Your task to perform on an android device: Open Amazon Image 0: 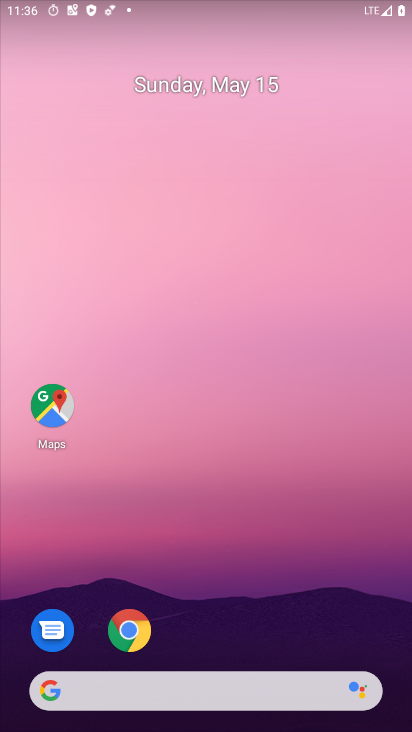
Step 0: click (130, 629)
Your task to perform on an android device: Open Amazon Image 1: 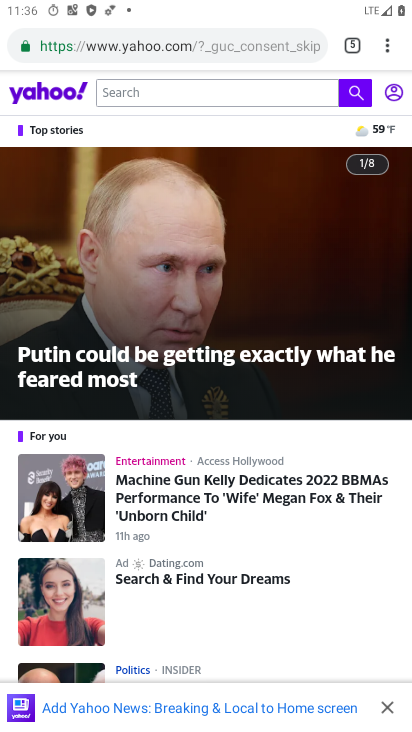
Step 1: click (354, 46)
Your task to perform on an android device: Open Amazon Image 2: 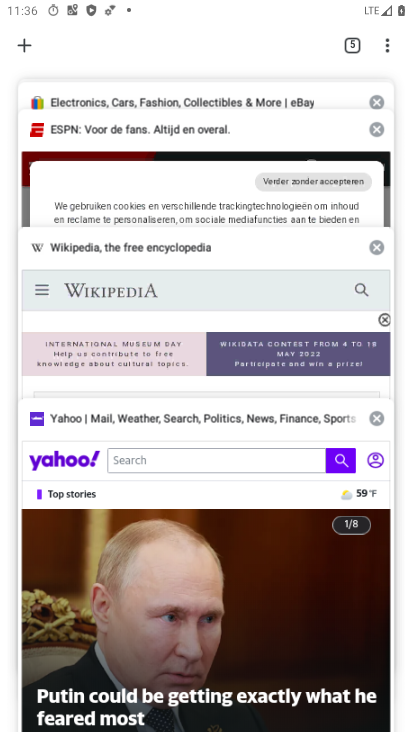
Step 2: drag from (196, 143) to (184, 535)
Your task to perform on an android device: Open Amazon Image 3: 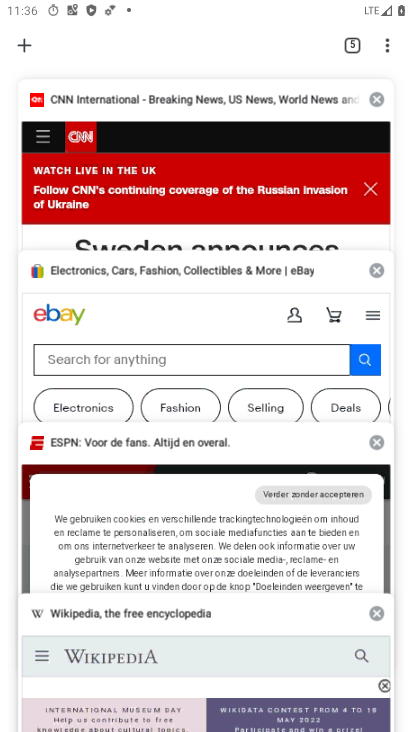
Step 3: drag from (155, 136) to (161, 548)
Your task to perform on an android device: Open Amazon Image 4: 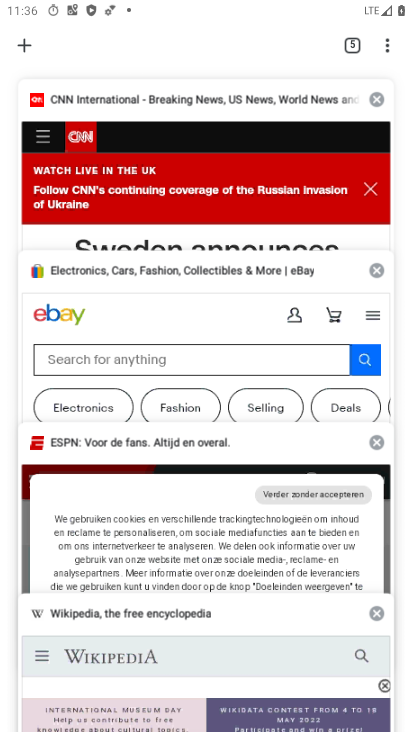
Step 4: click (26, 41)
Your task to perform on an android device: Open Amazon Image 5: 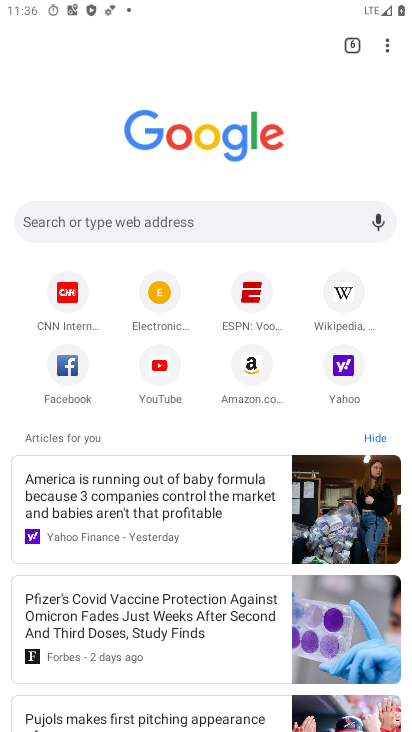
Step 5: click (246, 371)
Your task to perform on an android device: Open Amazon Image 6: 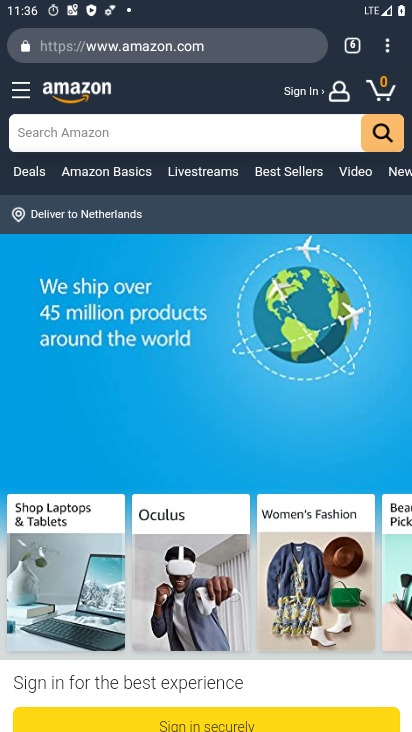
Step 6: task complete